Your task to perform on an android device: uninstall "Expedia: Hotels, Flights & Car" Image 0: 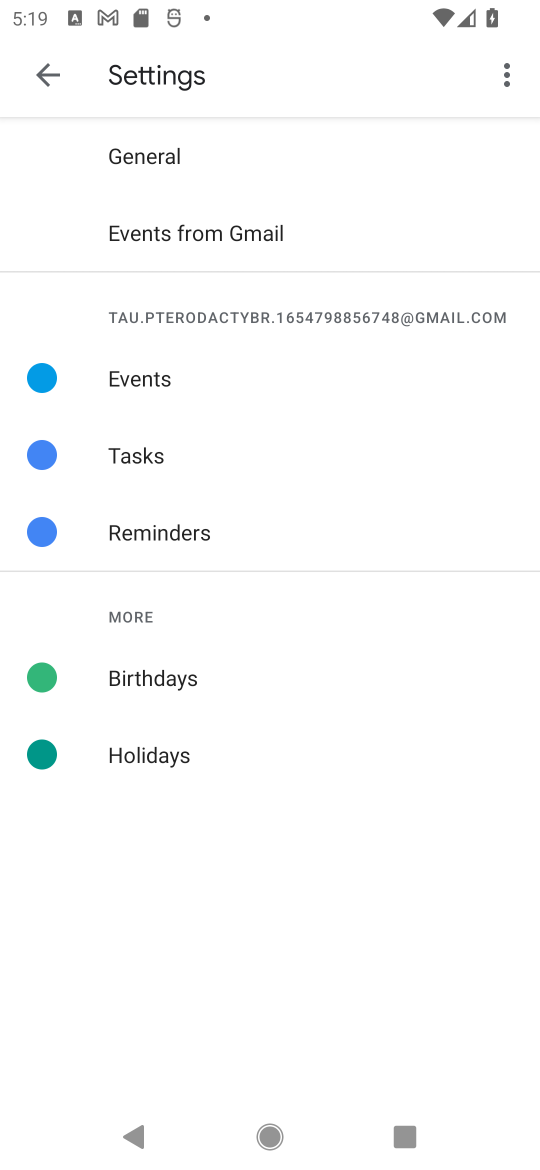
Step 0: press home button
Your task to perform on an android device: uninstall "Expedia: Hotels, Flights & Car" Image 1: 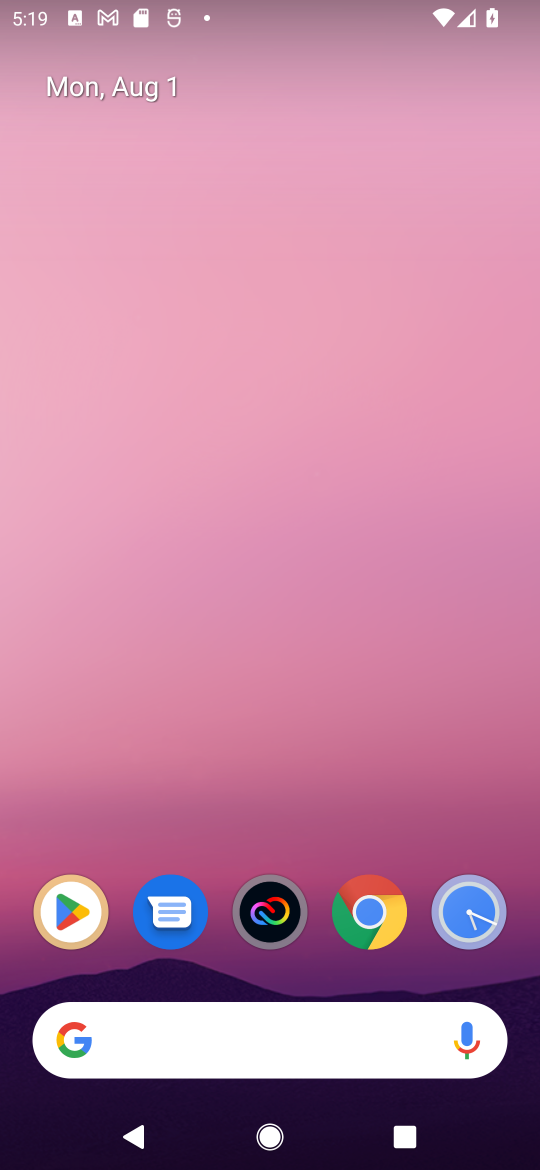
Step 1: click (63, 929)
Your task to perform on an android device: uninstall "Expedia: Hotels, Flights & Car" Image 2: 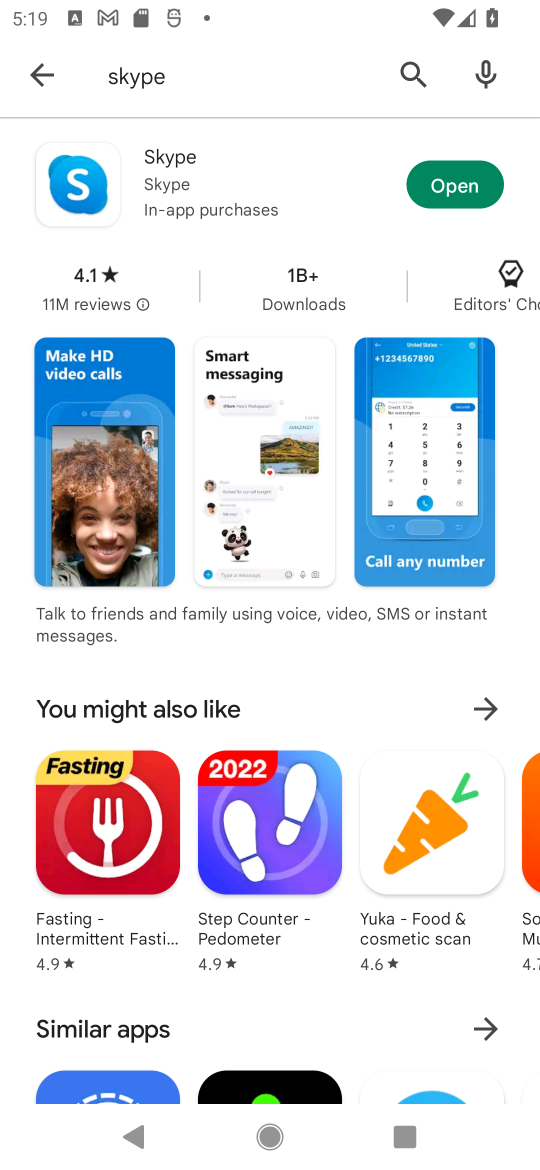
Step 2: click (415, 73)
Your task to perform on an android device: uninstall "Expedia: Hotels, Flights & Car" Image 3: 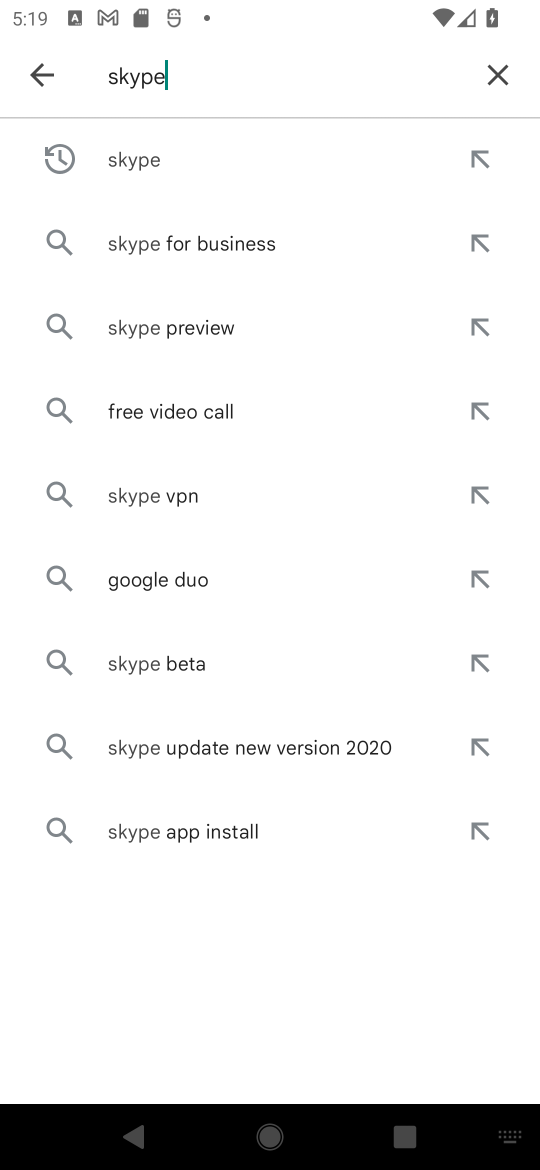
Step 3: click (497, 87)
Your task to perform on an android device: uninstall "Expedia: Hotels, Flights & Car" Image 4: 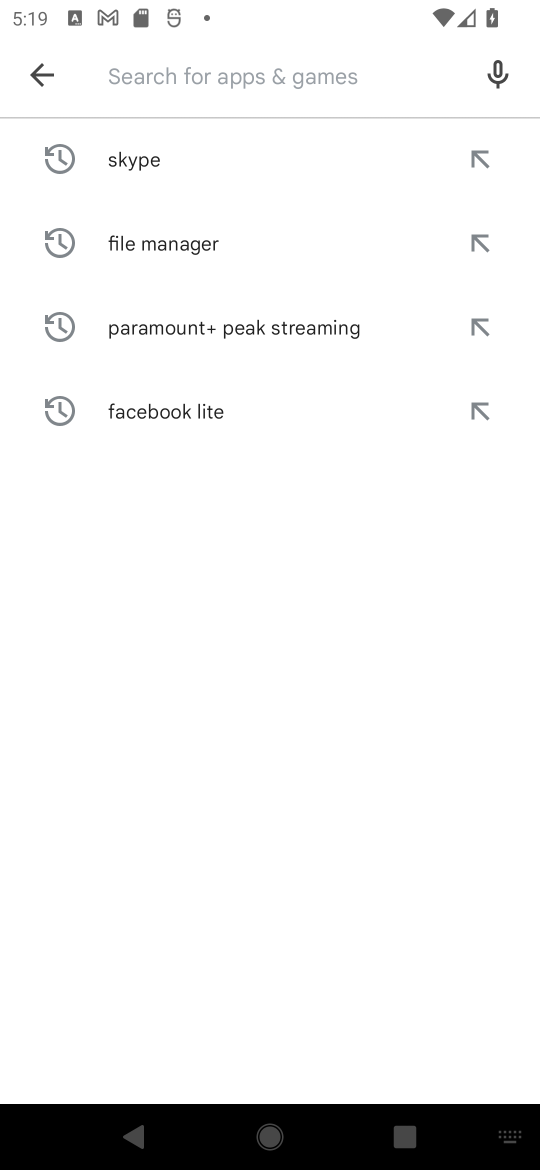
Step 4: click (327, 87)
Your task to perform on an android device: uninstall "Expedia: Hotels, Flights & Car" Image 5: 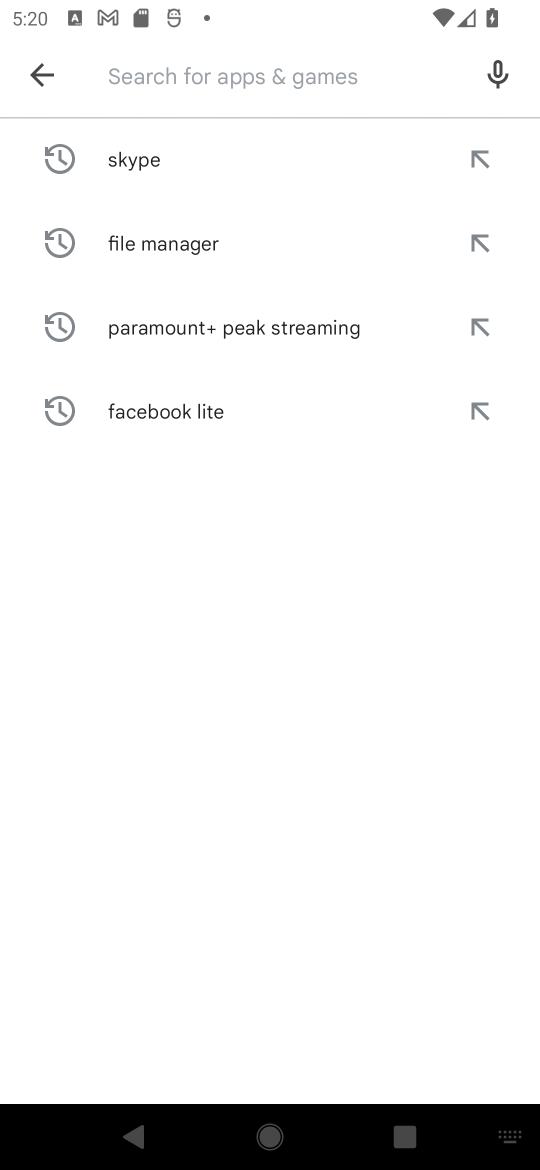
Step 5: type "Expedia: Hotels, Flights & Car"
Your task to perform on an android device: uninstall "Expedia: Hotels, Flights & Car" Image 6: 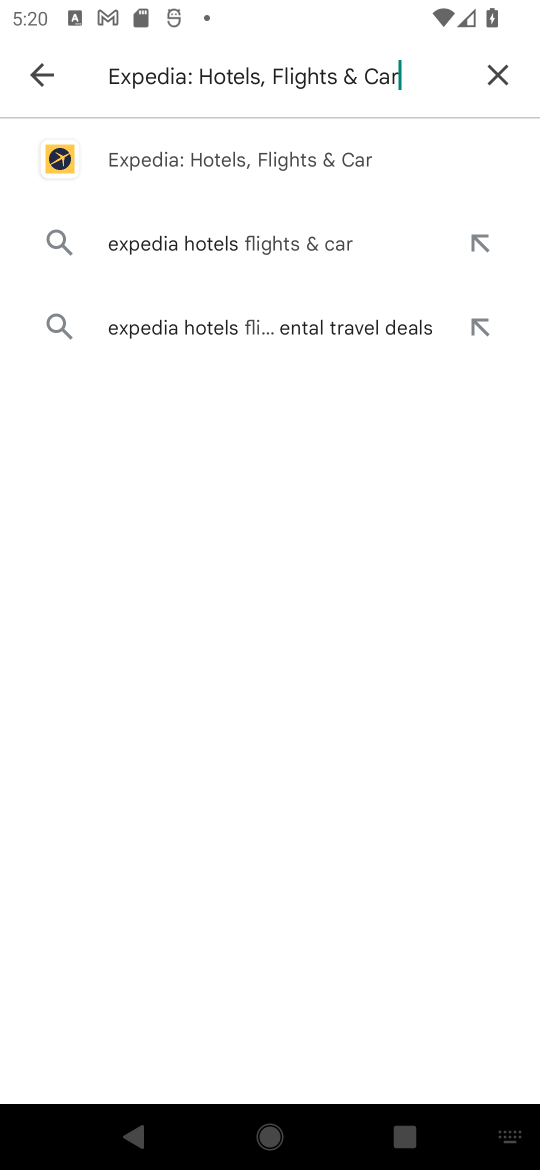
Step 6: click (172, 158)
Your task to perform on an android device: uninstall "Expedia: Hotels, Flights & Car" Image 7: 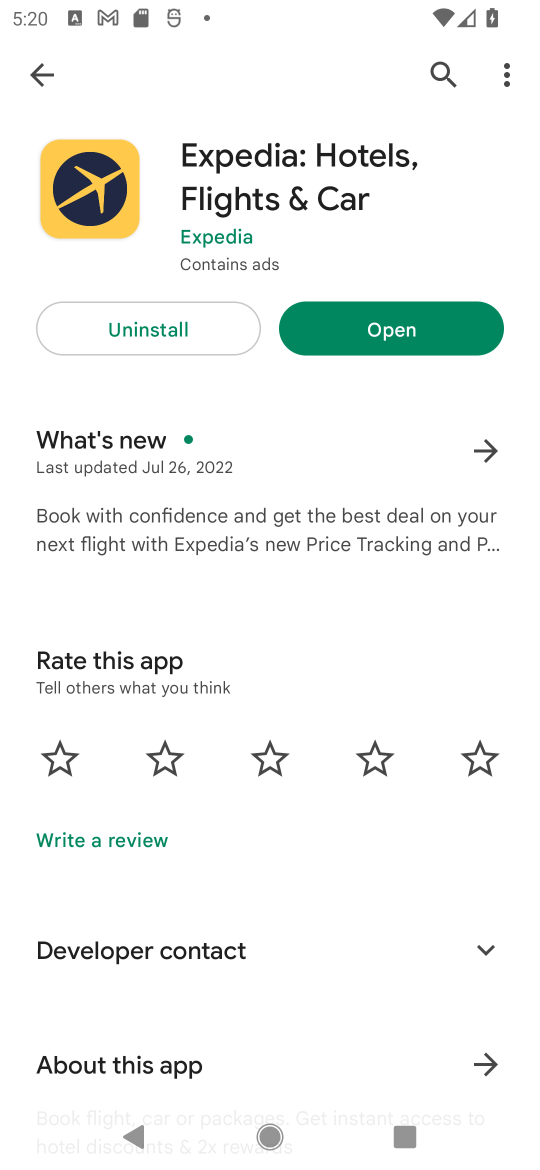
Step 7: click (134, 326)
Your task to perform on an android device: uninstall "Expedia: Hotels, Flights & Car" Image 8: 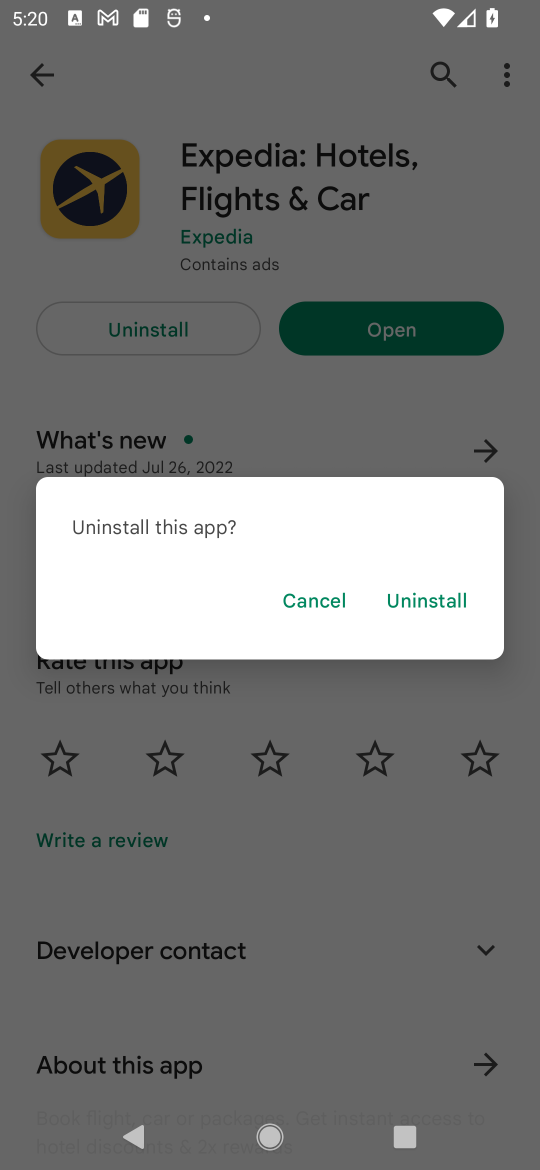
Step 8: click (451, 603)
Your task to perform on an android device: uninstall "Expedia: Hotels, Flights & Car" Image 9: 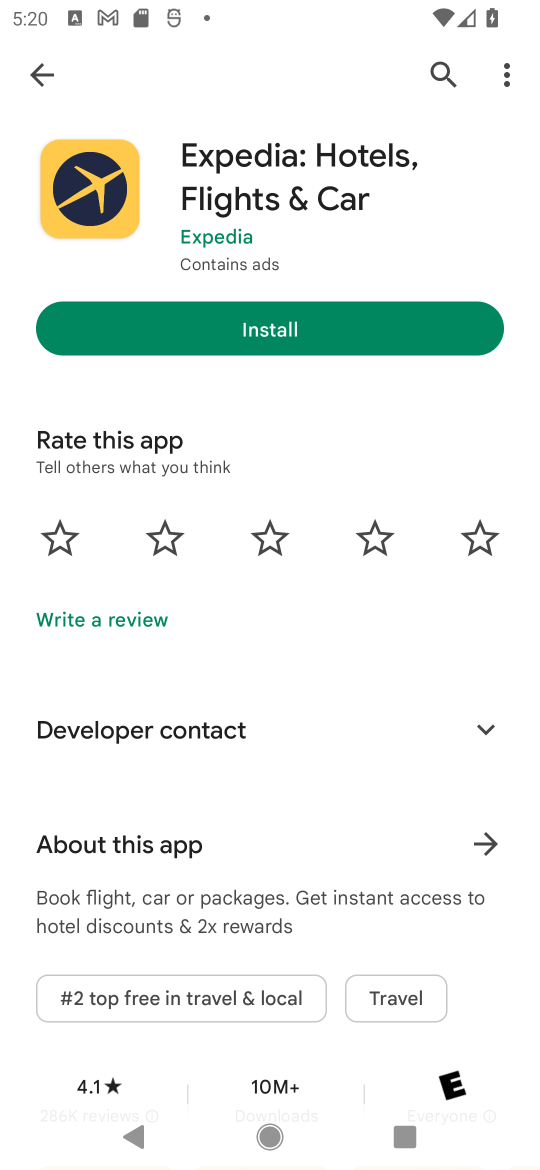
Step 9: task complete